Your task to perform on an android device: When is my next appointment? Image 0: 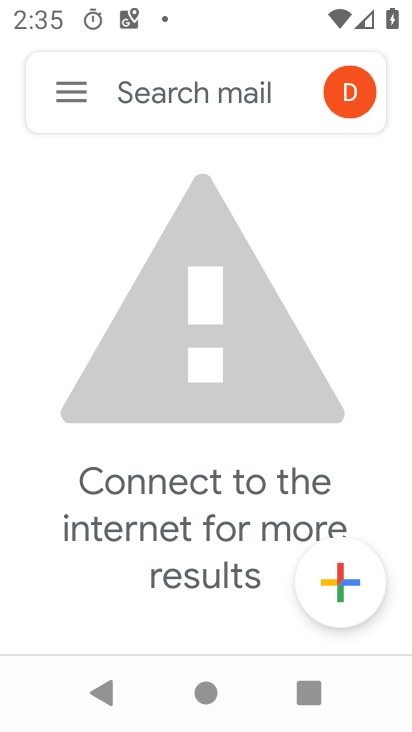
Step 0: press home button
Your task to perform on an android device: When is my next appointment? Image 1: 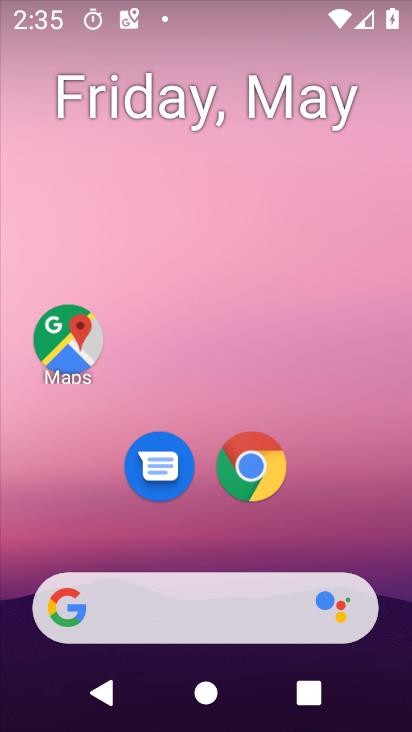
Step 1: drag from (299, 535) to (281, 37)
Your task to perform on an android device: When is my next appointment? Image 2: 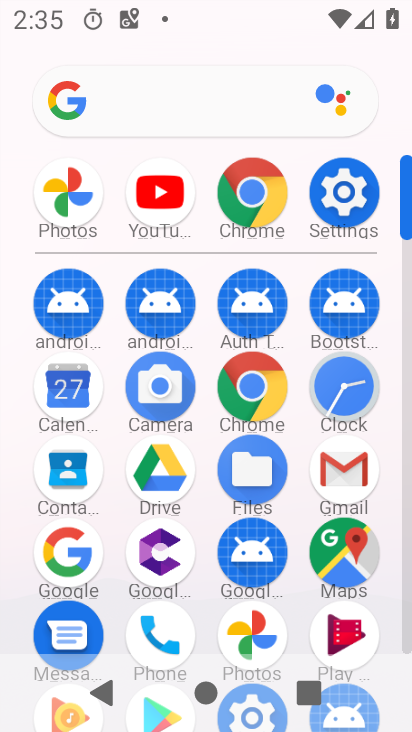
Step 2: drag from (392, 599) to (402, 265)
Your task to perform on an android device: When is my next appointment? Image 3: 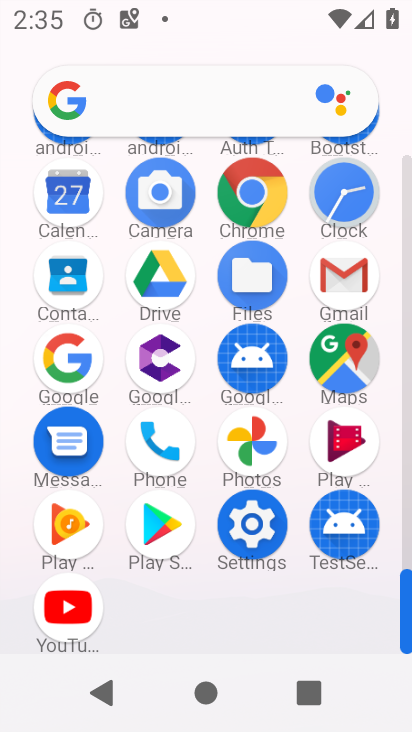
Step 3: drag from (396, 334) to (374, 592)
Your task to perform on an android device: When is my next appointment? Image 4: 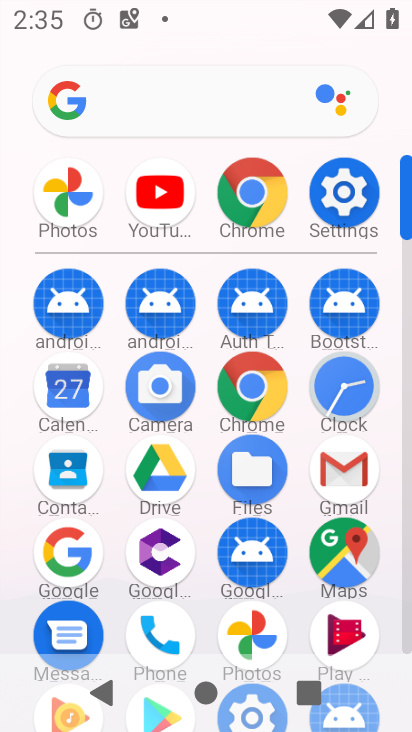
Step 4: click (60, 381)
Your task to perform on an android device: When is my next appointment? Image 5: 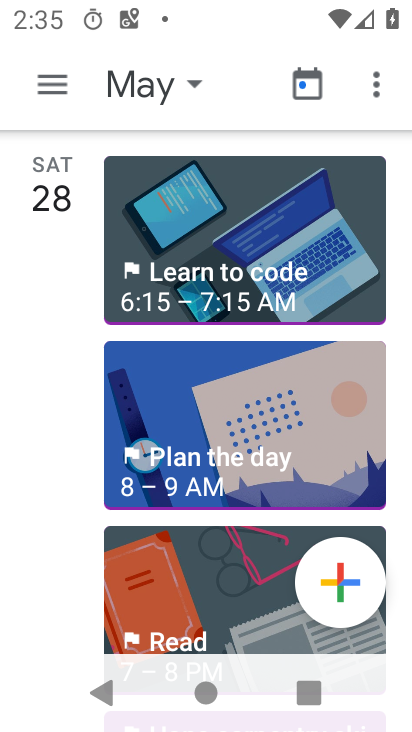
Step 5: click (134, 106)
Your task to perform on an android device: When is my next appointment? Image 6: 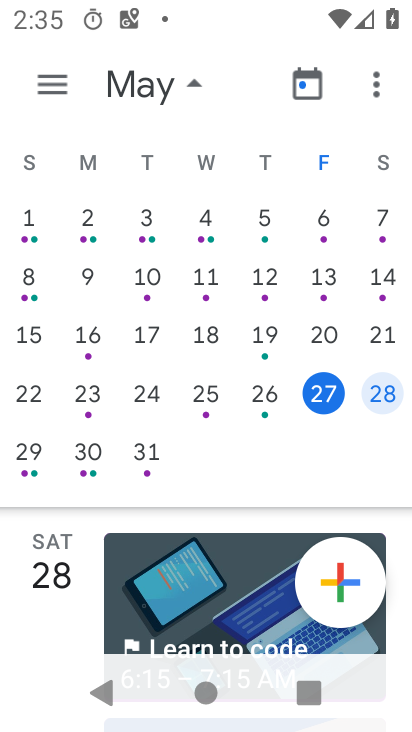
Step 6: click (29, 460)
Your task to perform on an android device: When is my next appointment? Image 7: 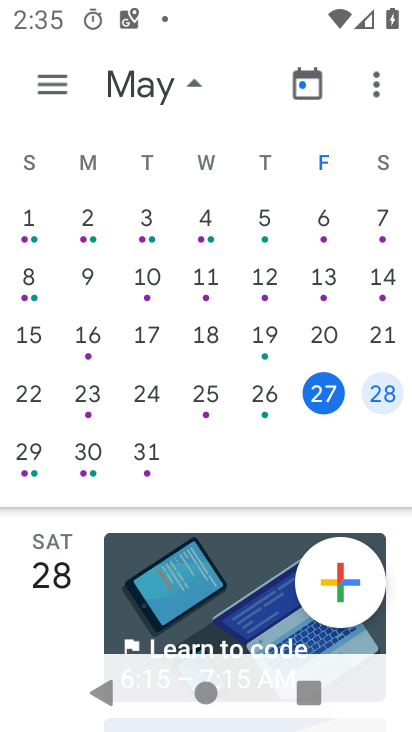
Step 7: click (43, 460)
Your task to perform on an android device: When is my next appointment? Image 8: 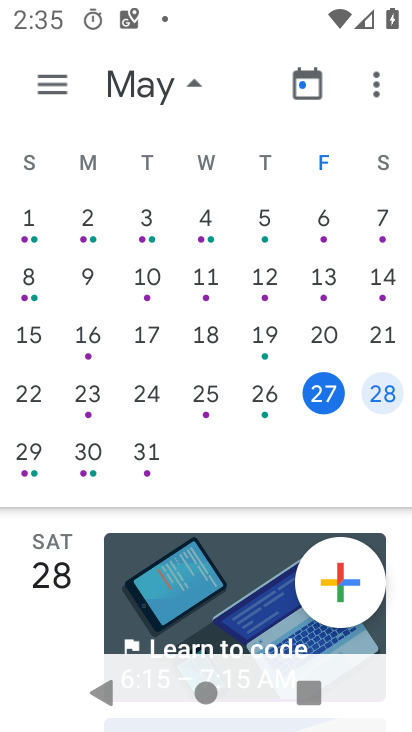
Step 8: click (40, 455)
Your task to perform on an android device: When is my next appointment? Image 9: 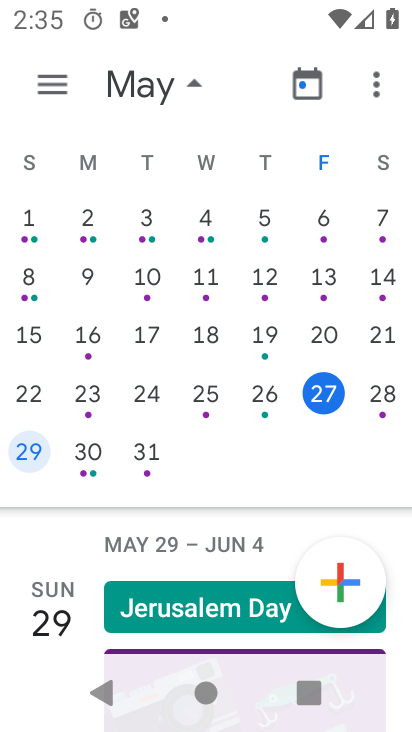
Step 9: task complete